Your task to perform on an android device: Go to CNN.com Image 0: 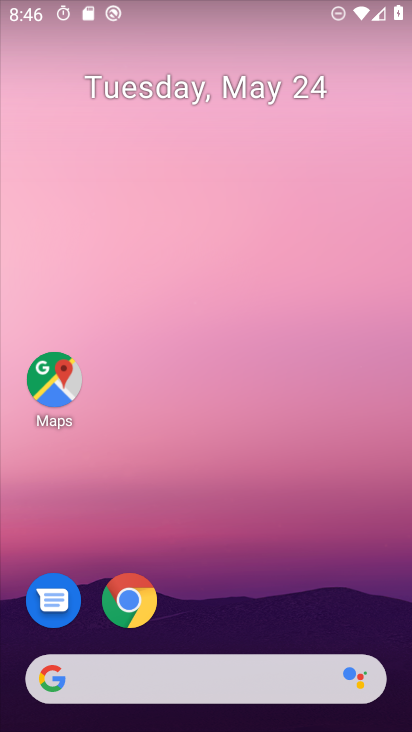
Step 0: click (139, 598)
Your task to perform on an android device: Go to CNN.com Image 1: 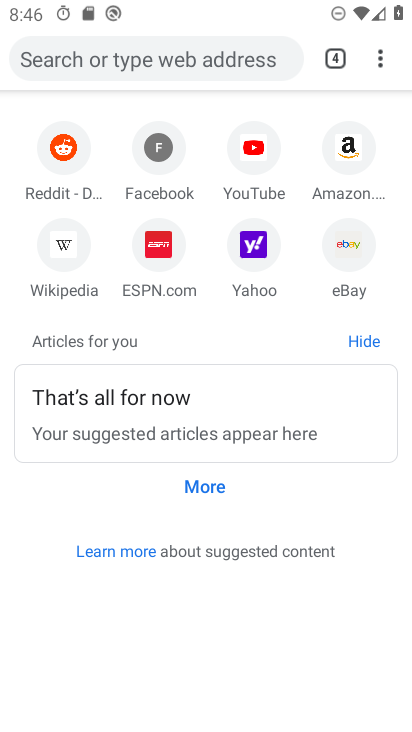
Step 1: click (99, 61)
Your task to perform on an android device: Go to CNN.com Image 2: 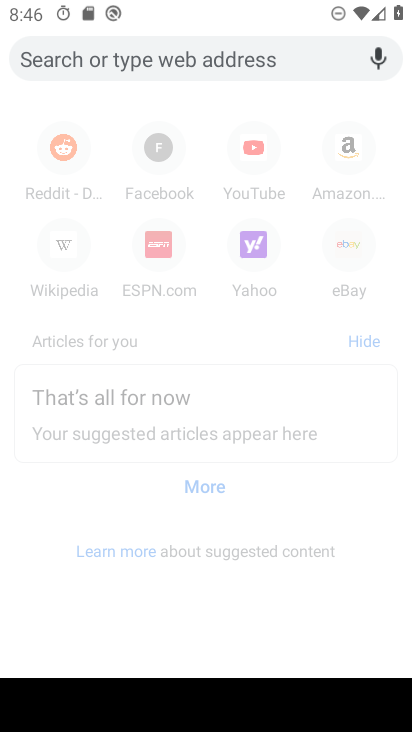
Step 2: click (74, 50)
Your task to perform on an android device: Go to CNN.com Image 3: 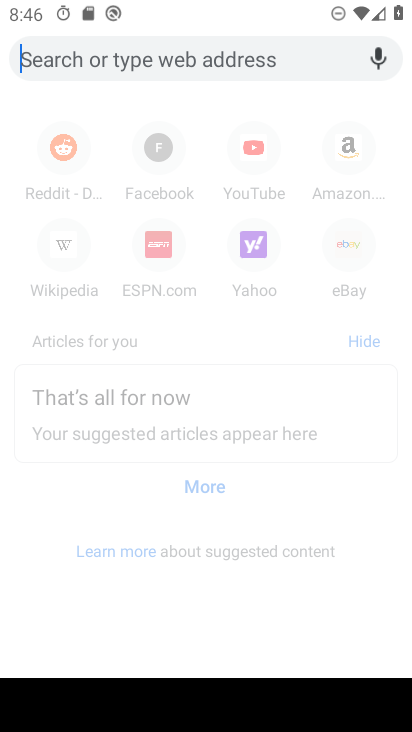
Step 3: type "cnn.com"
Your task to perform on an android device: Go to CNN.com Image 4: 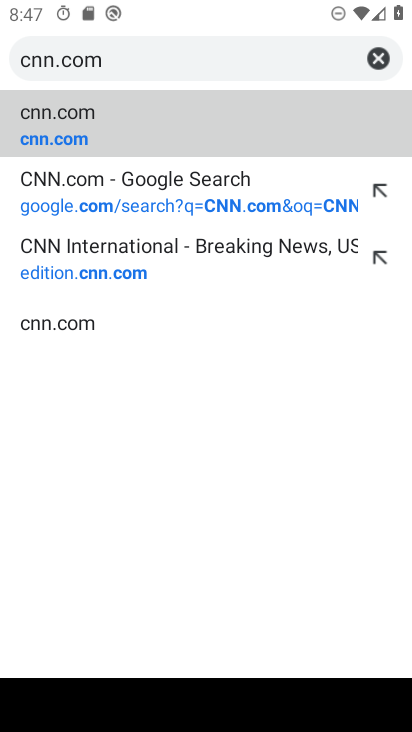
Step 4: click (119, 109)
Your task to perform on an android device: Go to CNN.com Image 5: 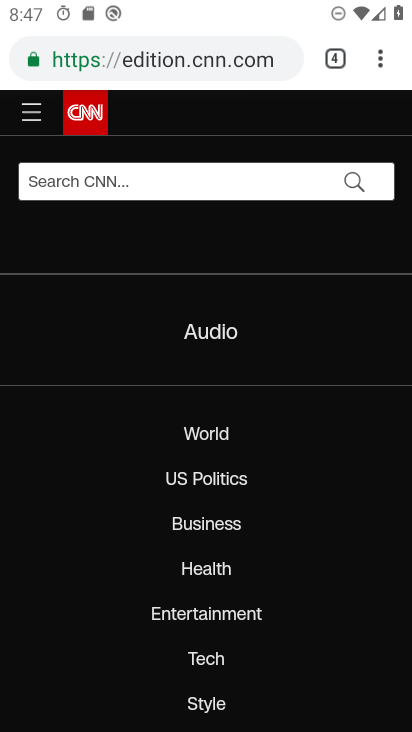
Step 5: task complete